Your task to perform on an android device: Open Youtube and go to the subscriptions tab Image 0: 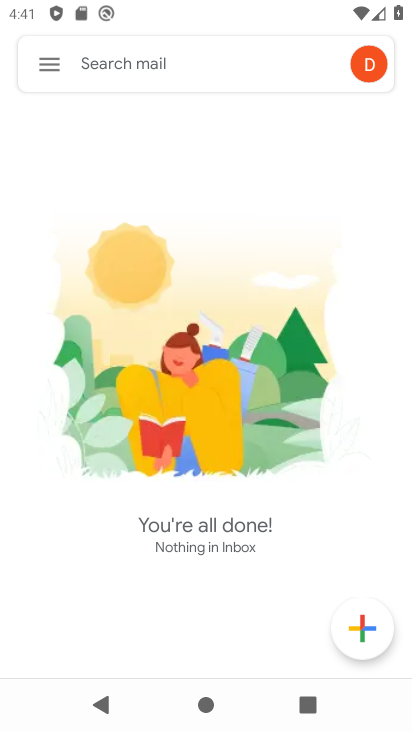
Step 0: click (194, 695)
Your task to perform on an android device: Open Youtube and go to the subscriptions tab Image 1: 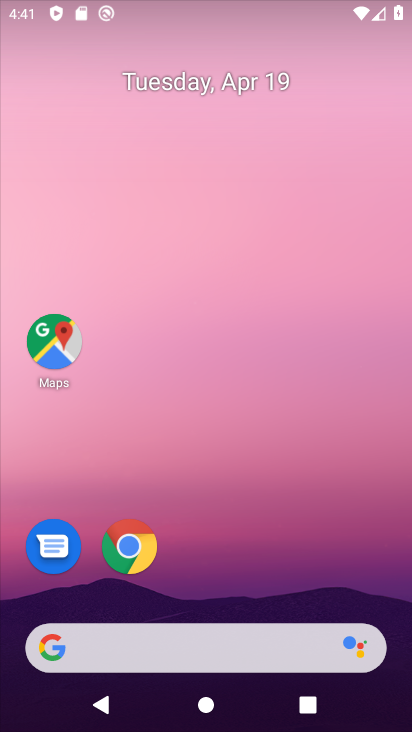
Step 1: drag from (278, 542) to (210, 0)
Your task to perform on an android device: Open Youtube and go to the subscriptions tab Image 2: 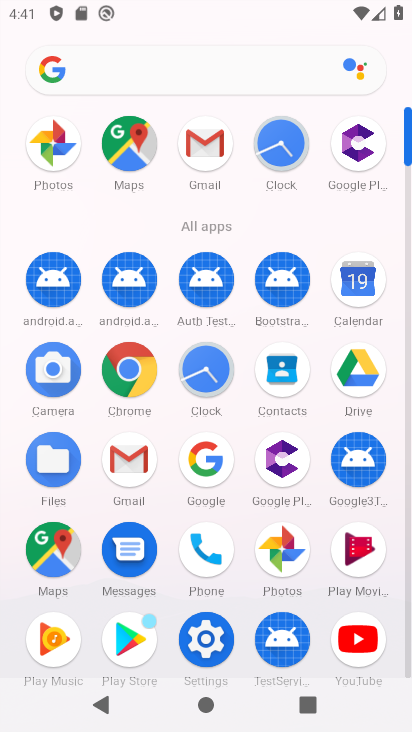
Step 2: click (357, 638)
Your task to perform on an android device: Open Youtube and go to the subscriptions tab Image 3: 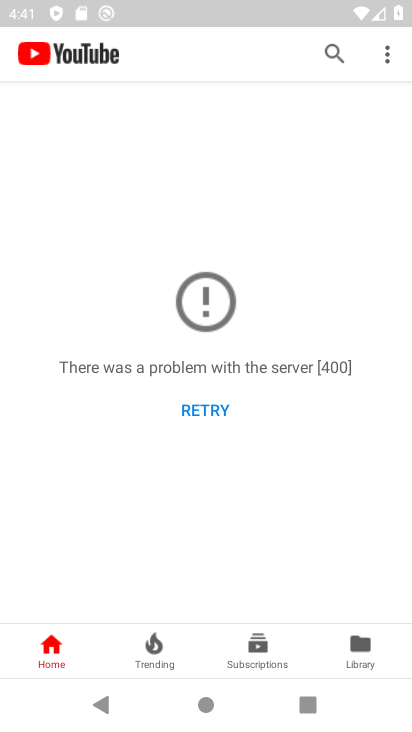
Step 3: click (256, 640)
Your task to perform on an android device: Open Youtube and go to the subscriptions tab Image 4: 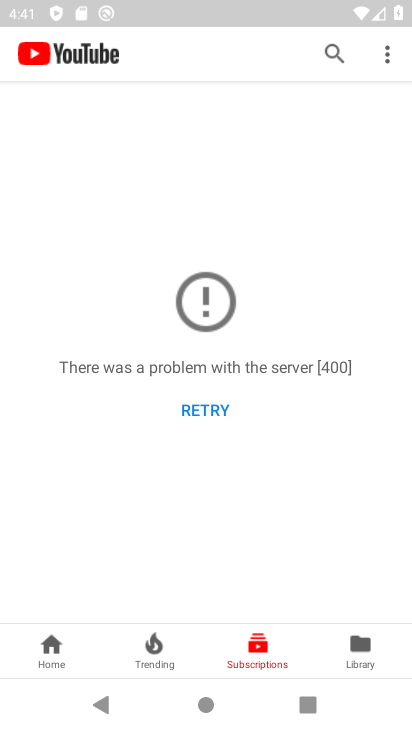
Step 4: task complete